Your task to perform on an android device: Is it going to rain tomorrow? Image 0: 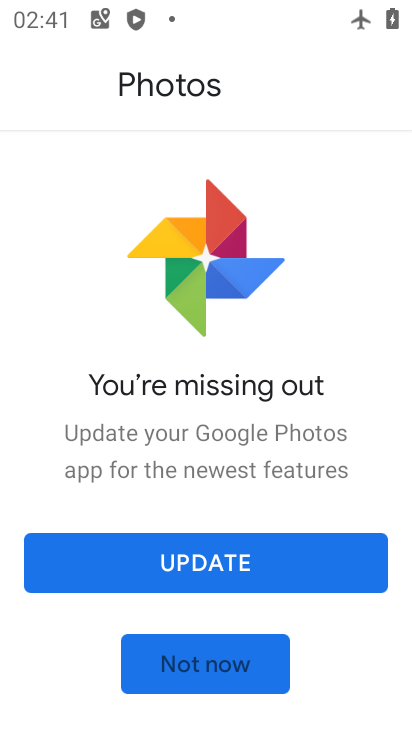
Step 0: press home button
Your task to perform on an android device: Is it going to rain tomorrow? Image 1: 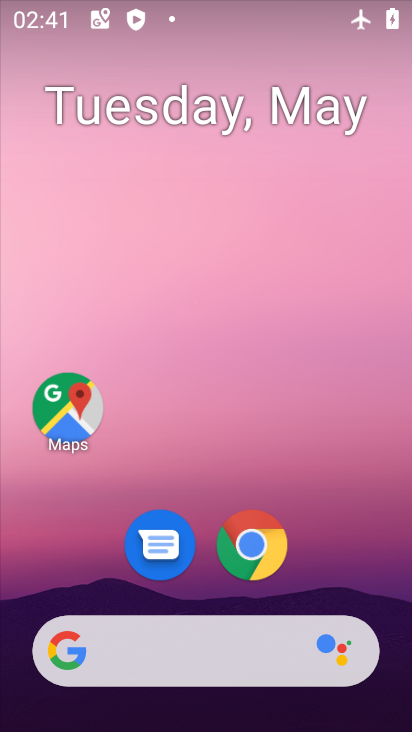
Step 1: drag from (367, 593) to (329, 160)
Your task to perform on an android device: Is it going to rain tomorrow? Image 2: 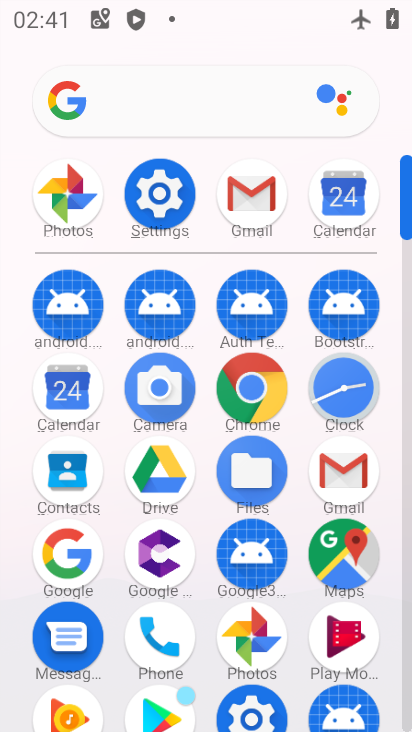
Step 2: click (155, 90)
Your task to perform on an android device: Is it going to rain tomorrow? Image 3: 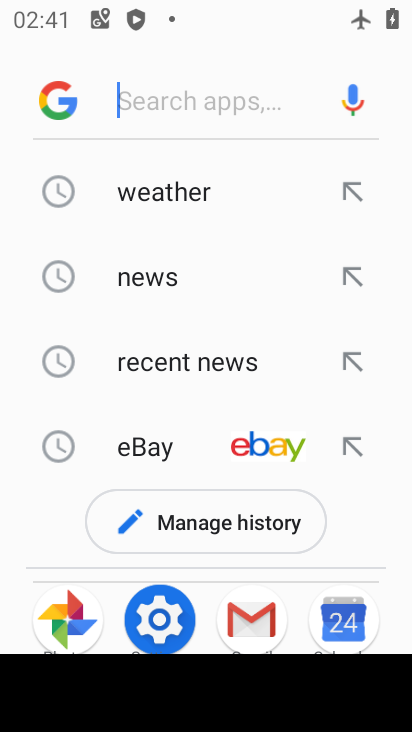
Step 3: click (176, 204)
Your task to perform on an android device: Is it going to rain tomorrow? Image 4: 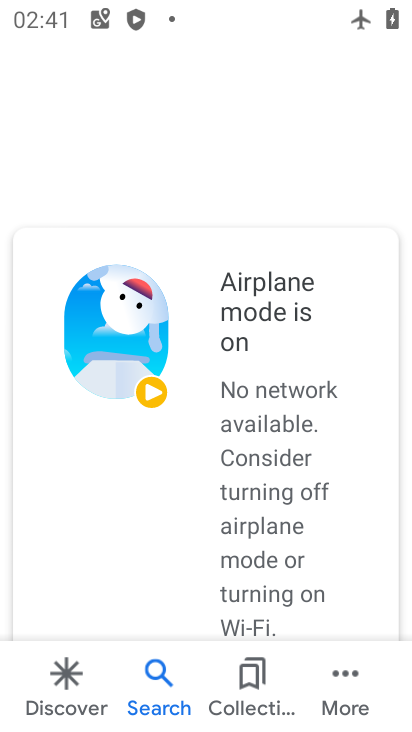
Step 4: drag from (245, 508) to (219, 155)
Your task to perform on an android device: Is it going to rain tomorrow? Image 5: 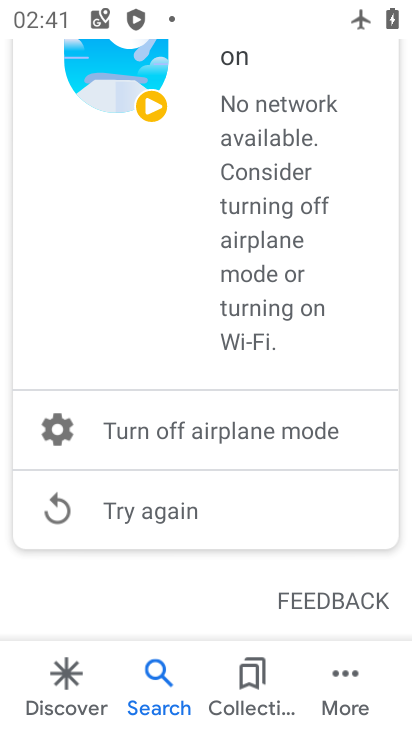
Step 5: press home button
Your task to perform on an android device: Is it going to rain tomorrow? Image 6: 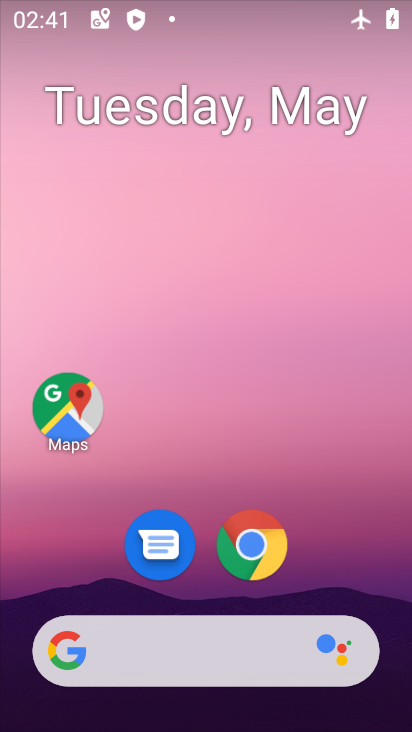
Step 6: drag from (383, 599) to (314, 220)
Your task to perform on an android device: Is it going to rain tomorrow? Image 7: 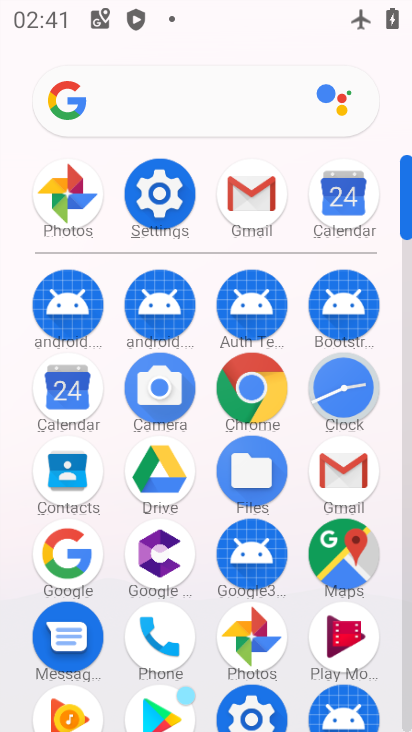
Step 7: click (406, 639)
Your task to perform on an android device: Is it going to rain tomorrow? Image 8: 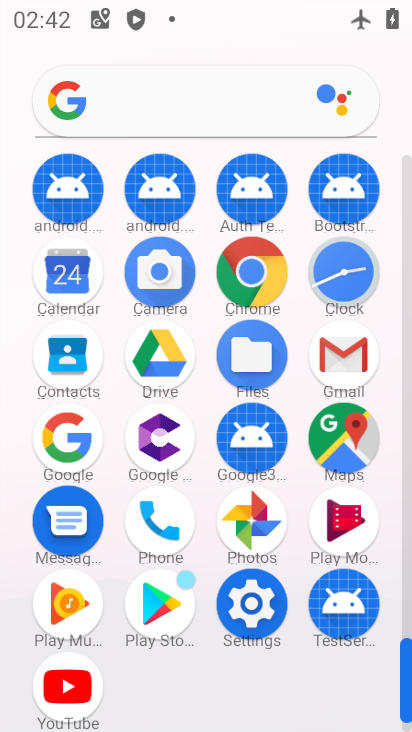
Step 8: click (248, 603)
Your task to perform on an android device: Is it going to rain tomorrow? Image 9: 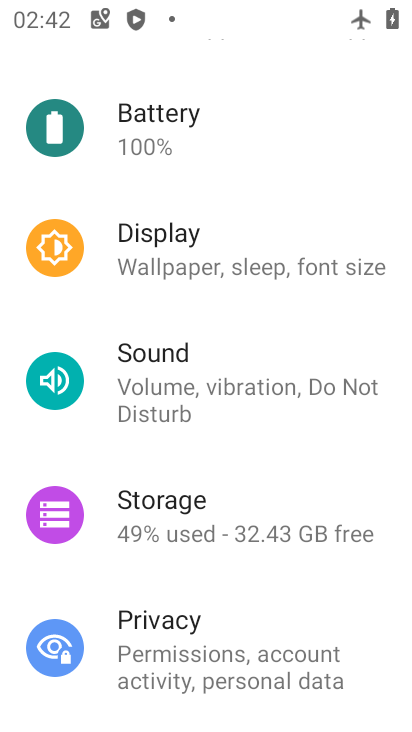
Step 9: drag from (346, 368) to (351, 644)
Your task to perform on an android device: Is it going to rain tomorrow? Image 10: 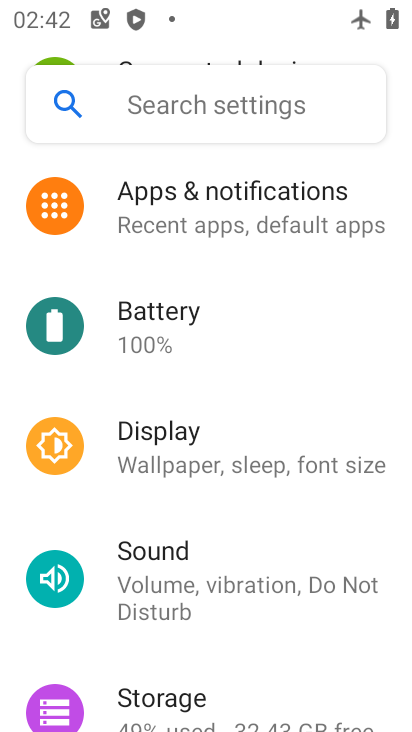
Step 10: drag from (314, 189) to (307, 411)
Your task to perform on an android device: Is it going to rain tomorrow? Image 11: 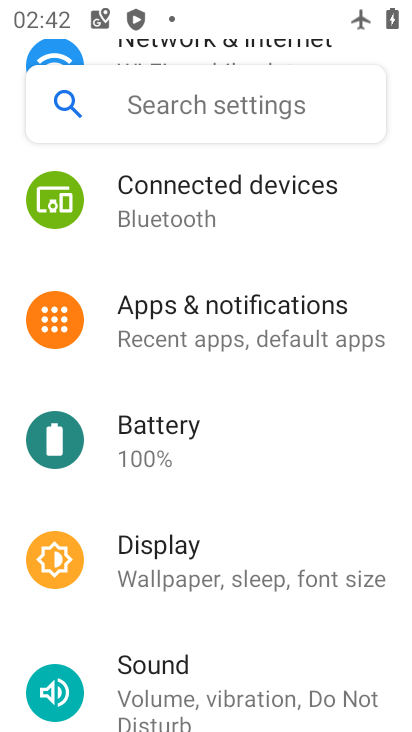
Step 11: drag from (308, 224) to (306, 517)
Your task to perform on an android device: Is it going to rain tomorrow? Image 12: 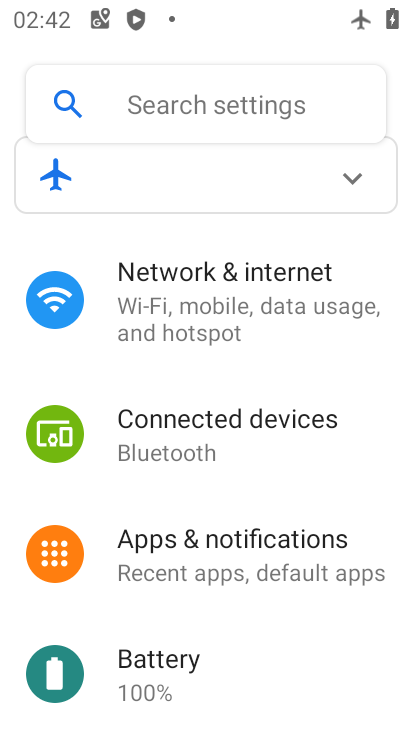
Step 12: click (169, 304)
Your task to perform on an android device: Is it going to rain tomorrow? Image 13: 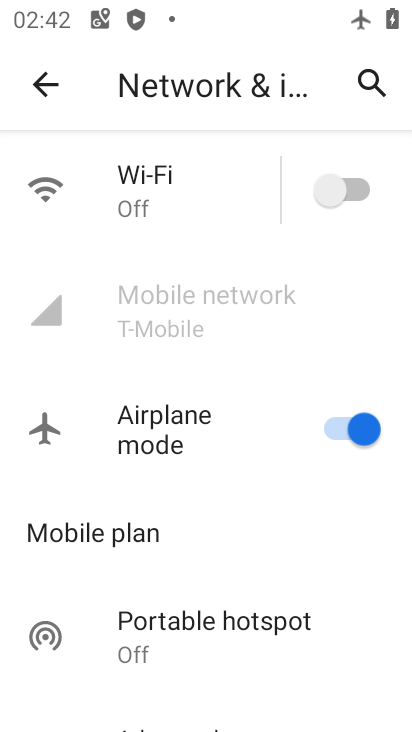
Step 13: click (359, 190)
Your task to perform on an android device: Is it going to rain tomorrow? Image 14: 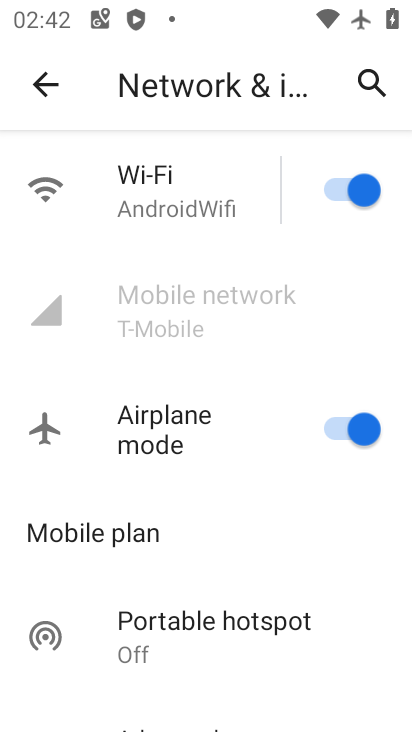
Step 14: press home button
Your task to perform on an android device: Is it going to rain tomorrow? Image 15: 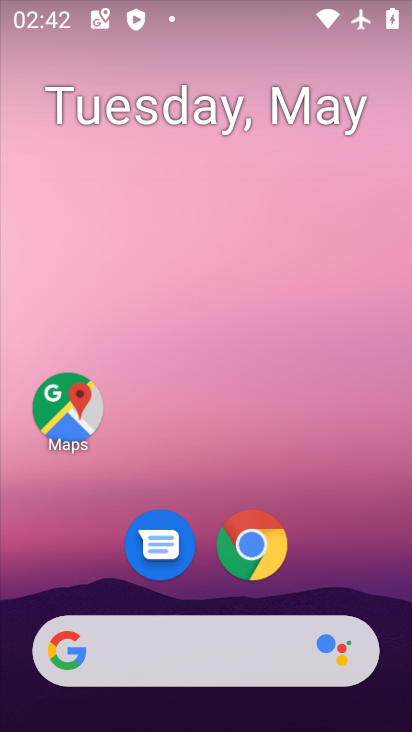
Step 15: click (150, 650)
Your task to perform on an android device: Is it going to rain tomorrow? Image 16: 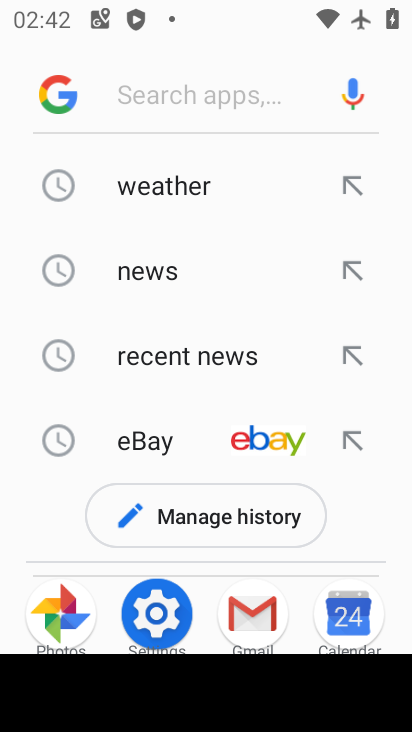
Step 16: click (161, 190)
Your task to perform on an android device: Is it going to rain tomorrow? Image 17: 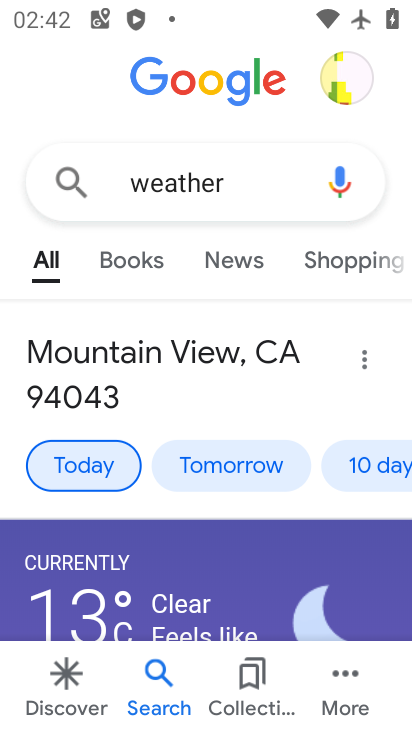
Step 17: click (224, 458)
Your task to perform on an android device: Is it going to rain tomorrow? Image 18: 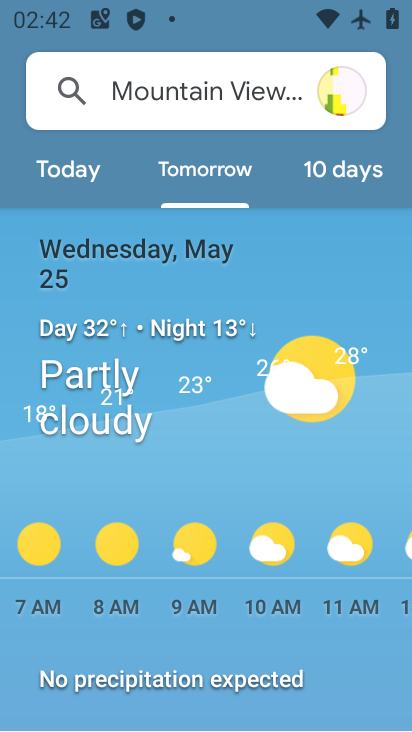
Step 18: drag from (367, 565) to (58, 543)
Your task to perform on an android device: Is it going to rain tomorrow? Image 19: 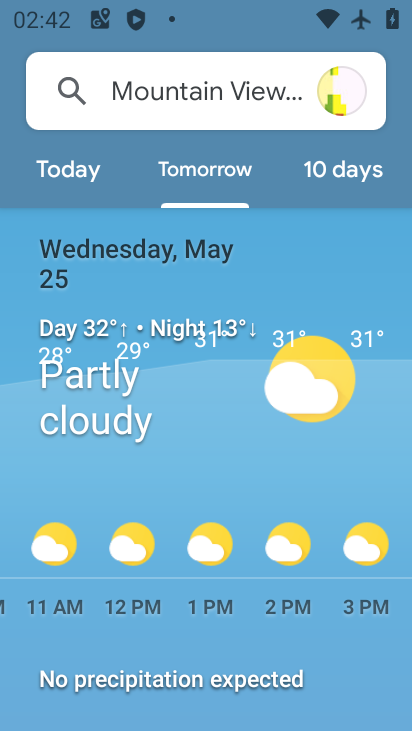
Step 19: drag from (345, 544) to (2, 532)
Your task to perform on an android device: Is it going to rain tomorrow? Image 20: 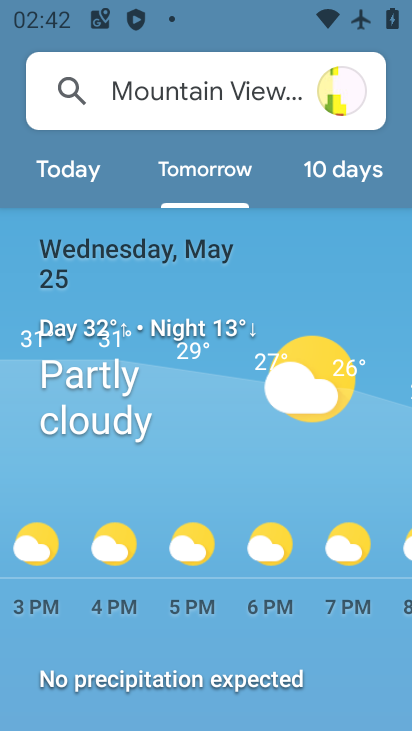
Step 20: drag from (353, 540) to (64, 522)
Your task to perform on an android device: Is it going to rain tomorrow? Image 21: 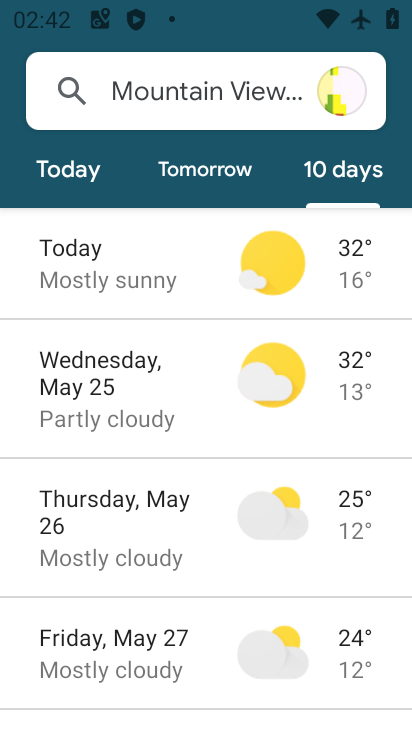
Step 21: click (186, 174)
Your task to perform on an android device: Is it going to rain tomorrow? Image 22: 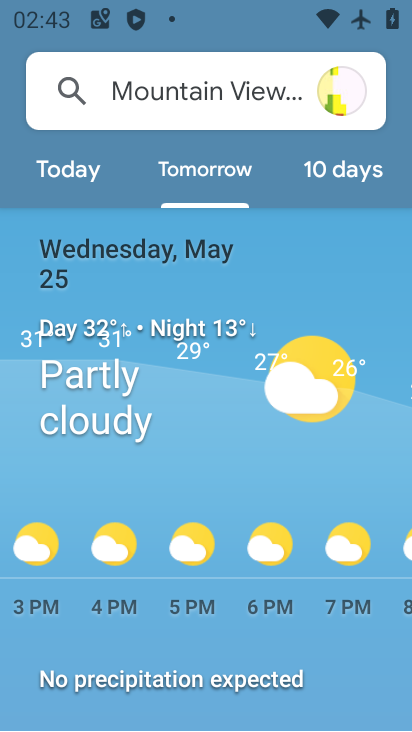
Step 22: task complete